Your task to perform on an android device: Open privacy settings Image 0: 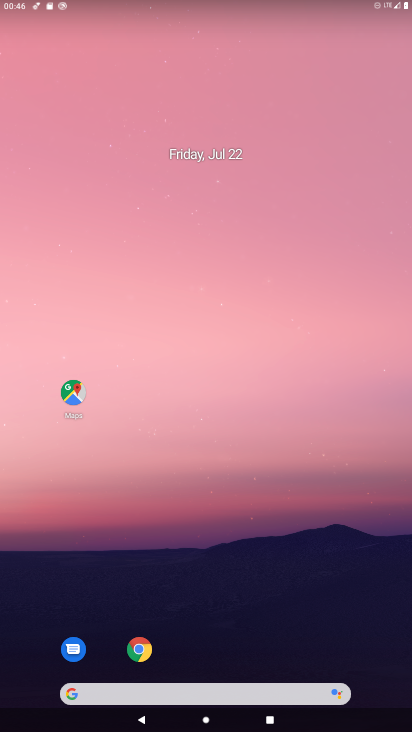
Step 0: drag from (236, 726) to (235, 322)
Your task to perform on an android device: Open privacy settings Image 1: 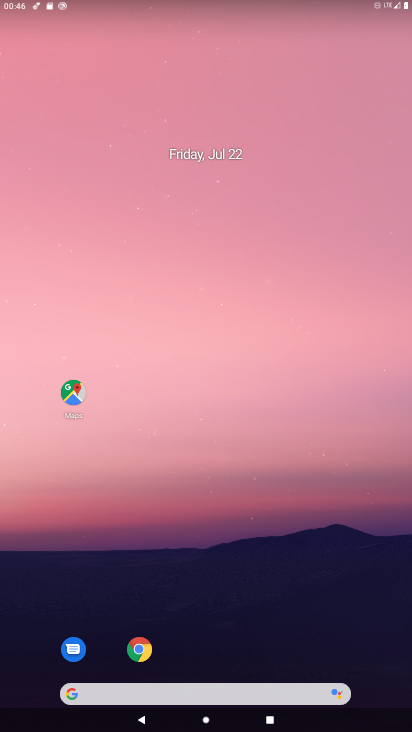
Step 1: drag from (232, 461) to (232, 170)
Your task to perform on an android device: Open privacy settings Image 2: 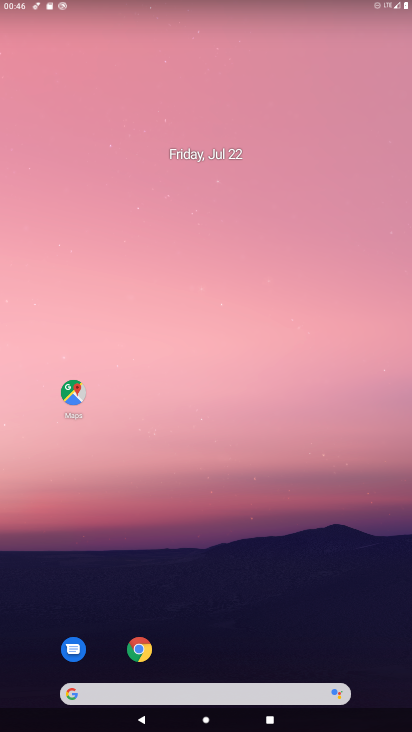
Step 2: drag from (237, 722) to (224, 2)
Your task to perform on an android device: Open privacy settings Image 3: 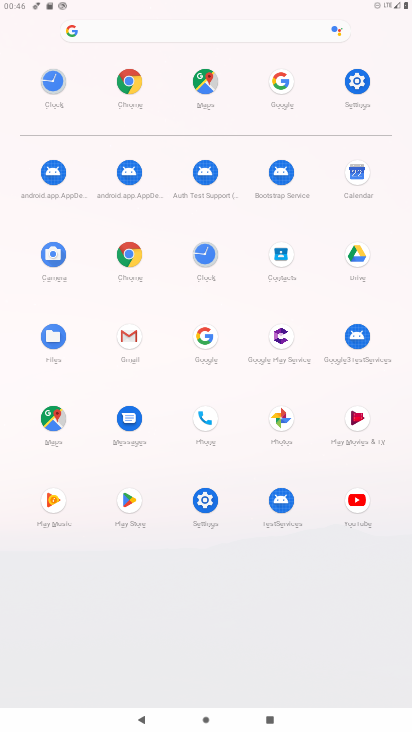
Step 3: click (364, 78)
Your task to perform on an android device: Open privacy settings Image 4: 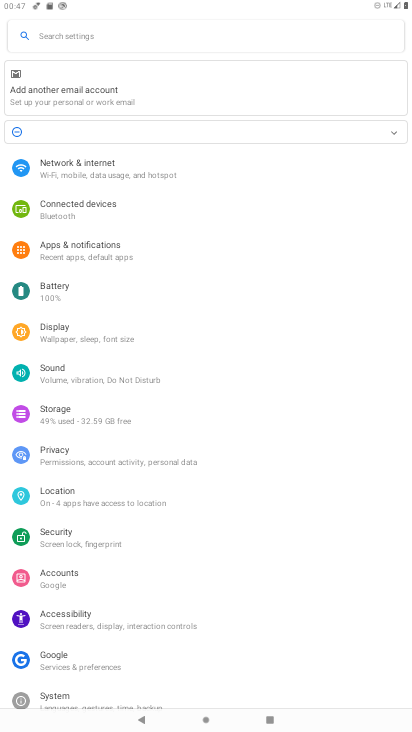
Step 4: click (69, 456)
Your task to perform on an android device: Open privacy settings Image 5: 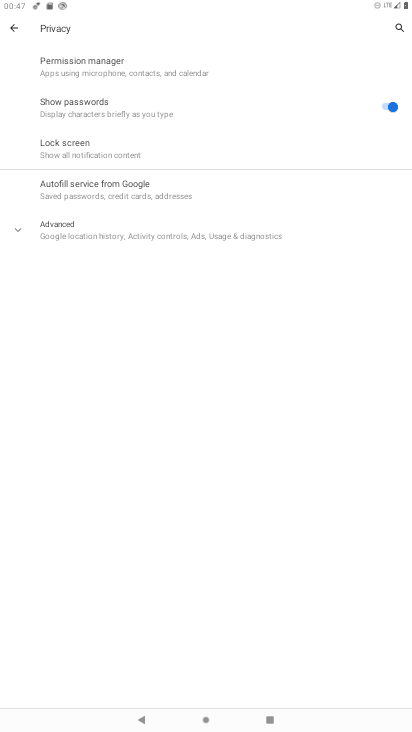
Step 5: task complete